Your task to perform on an android device: Add asus rog to the cart on newegg.com Image 0: 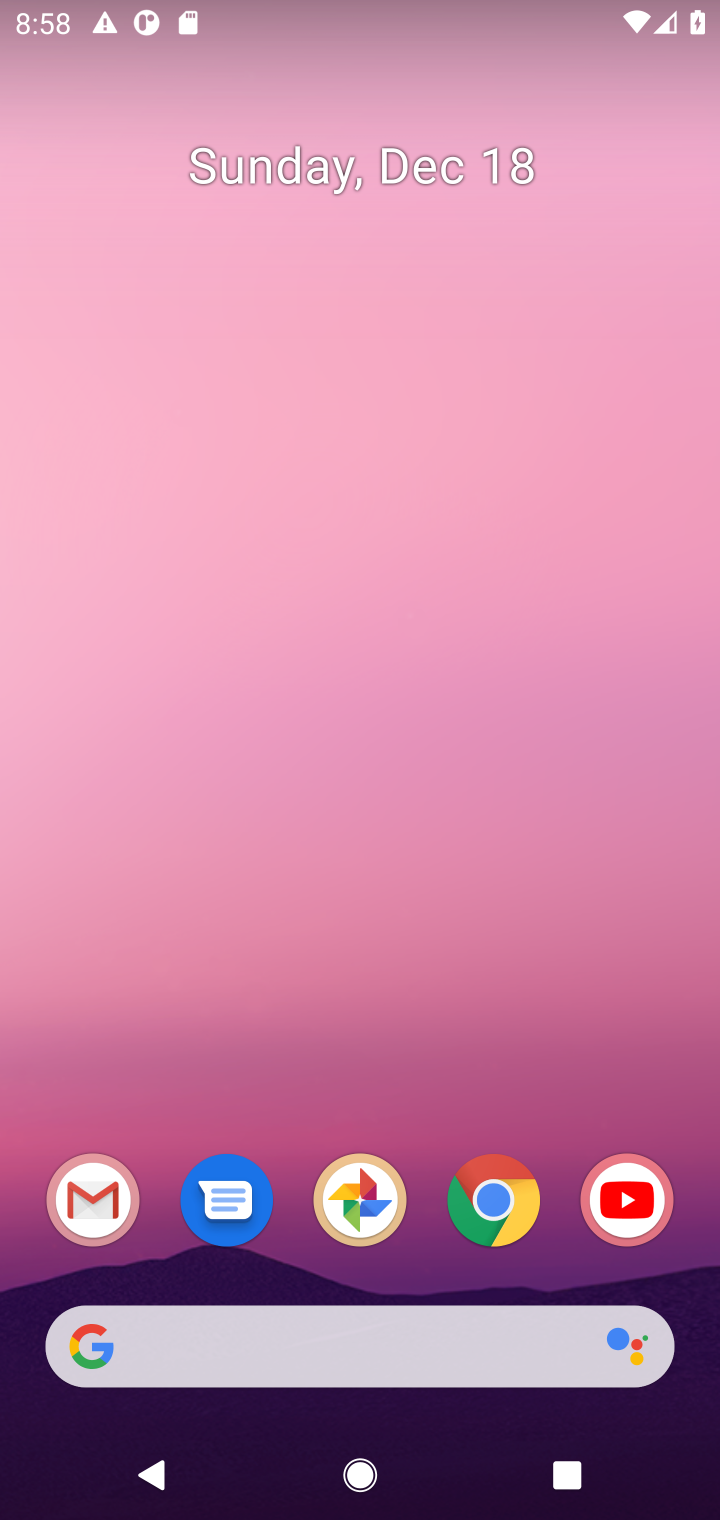
Step 0: click (523, 1220)
Your task to perform on an android device: Add asus rog to the cart on newegg.com Image 1: 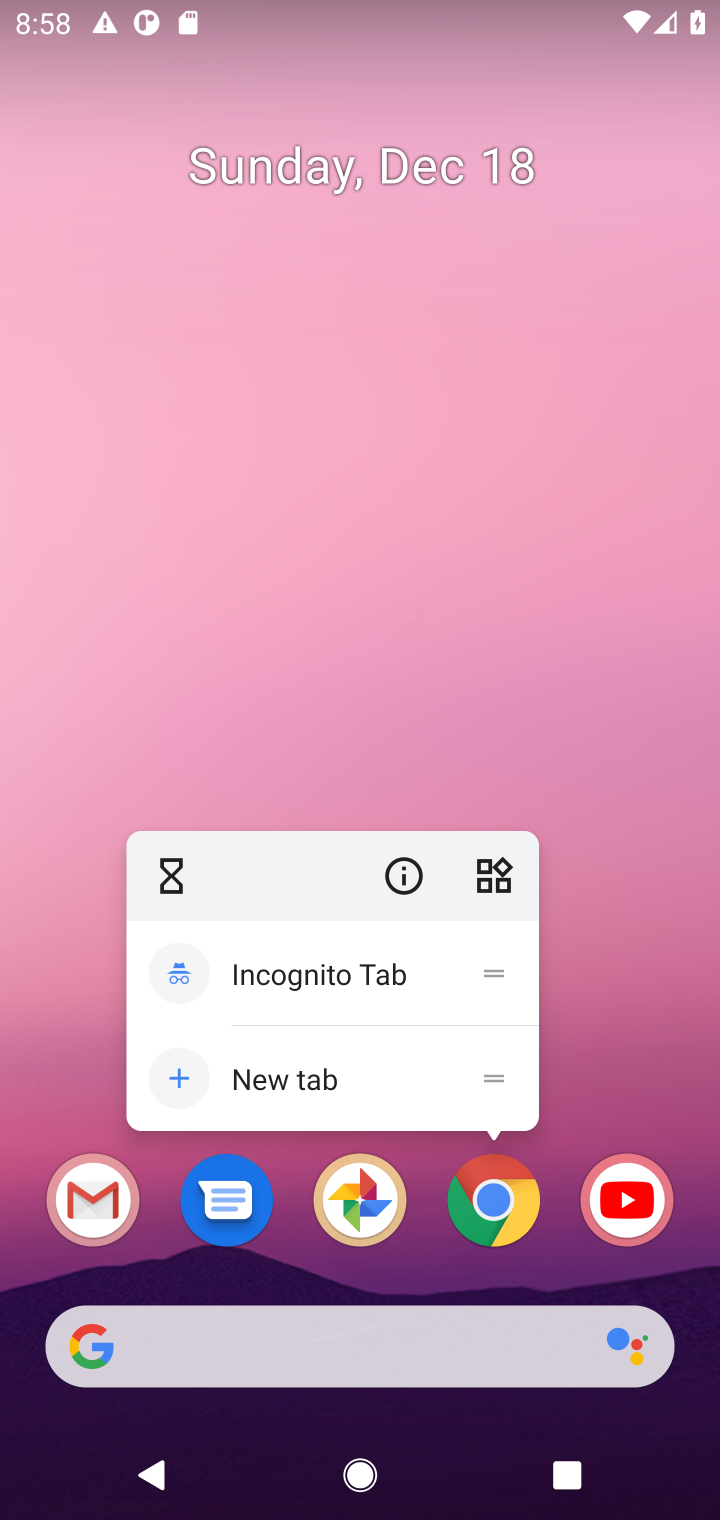
Step 1: click (494, 1200)
Your task to perform on an android device: Add asus rog to the cart on newegg.com Image 2: 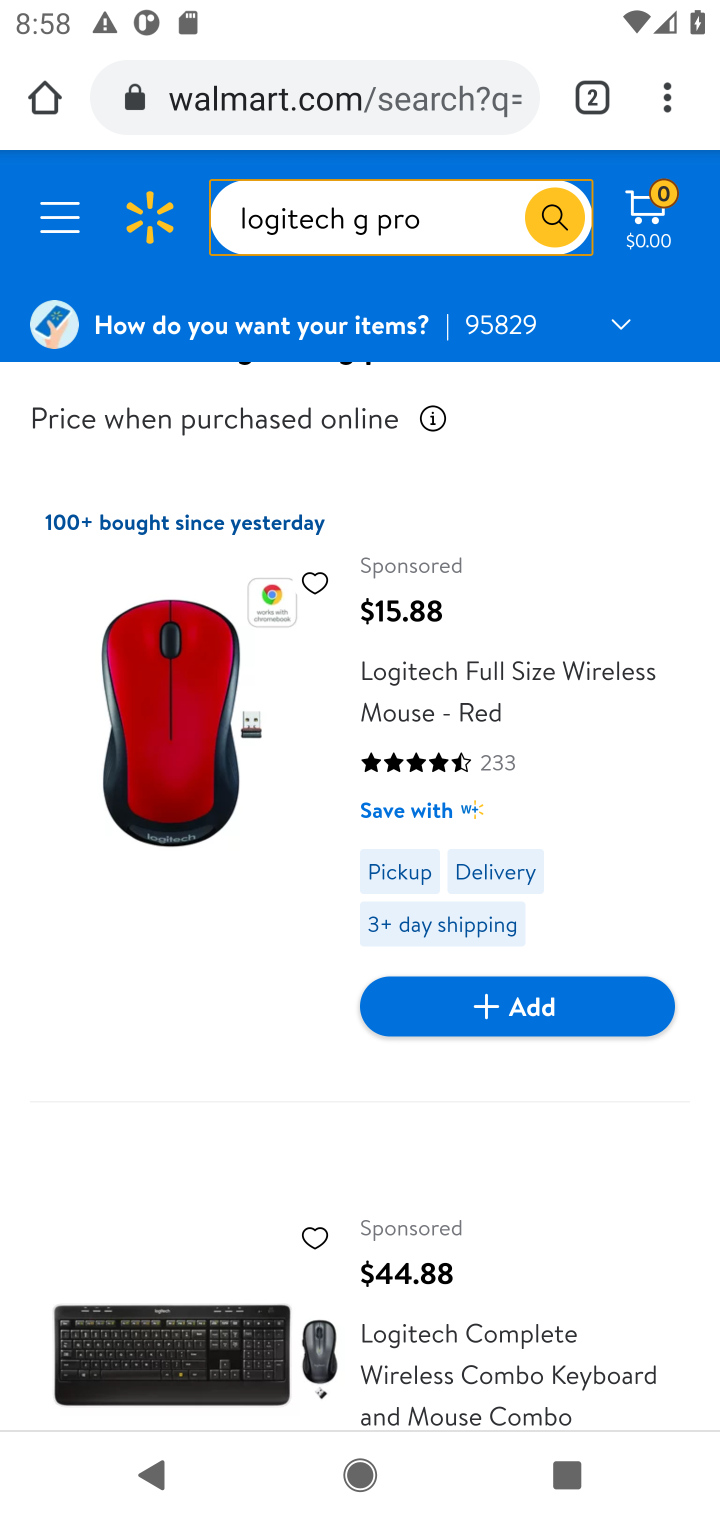
Step 2: click (265, 98)
Your task to perform on an android device: Add asus rog to the cart on newegg.com Image 3: 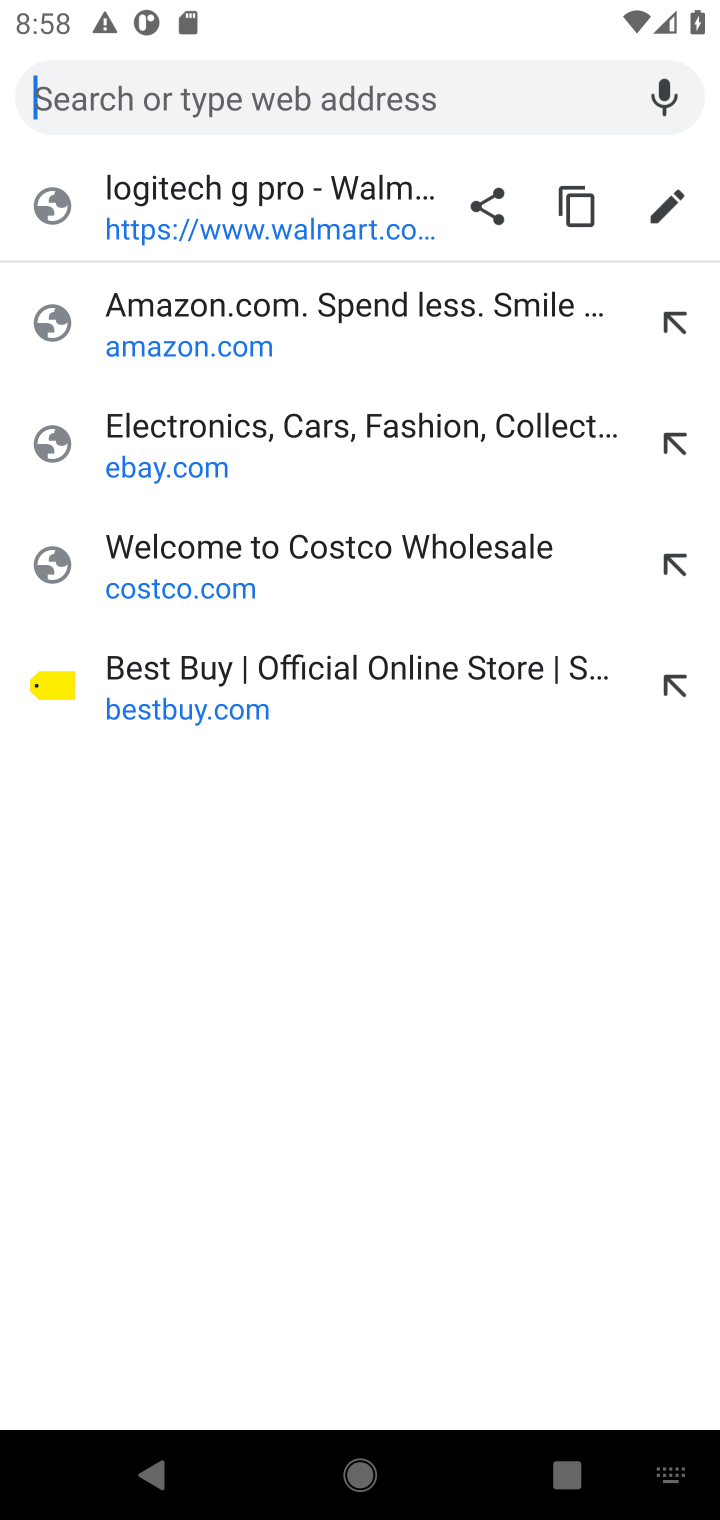
Step 3: type "newegg.com"
Your task to perform on an android device: Add asus rog to the cart on newegg.com Image 4: 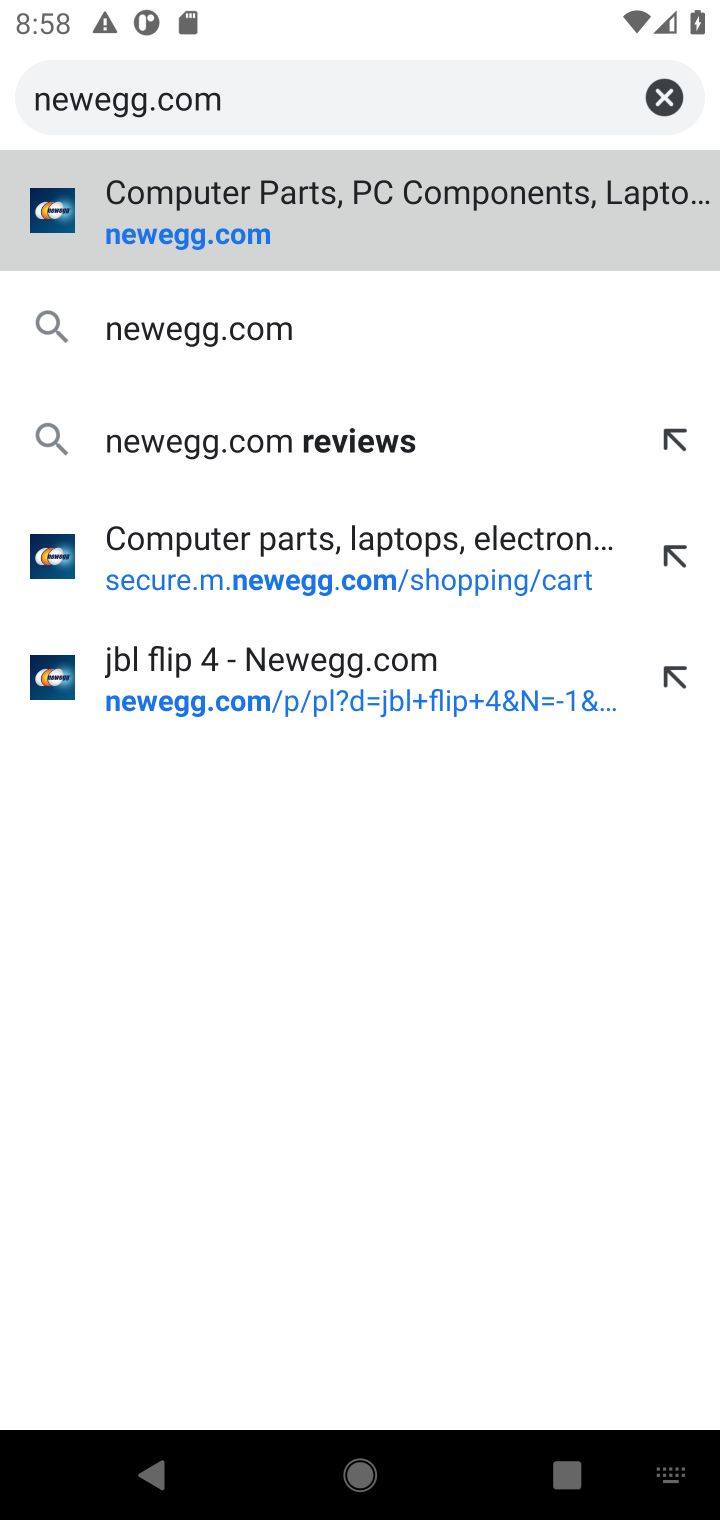
Step 4: click (153, 229)
Your task to perform on an android device: Add asus rog to the cart on newegg.com Image 5: 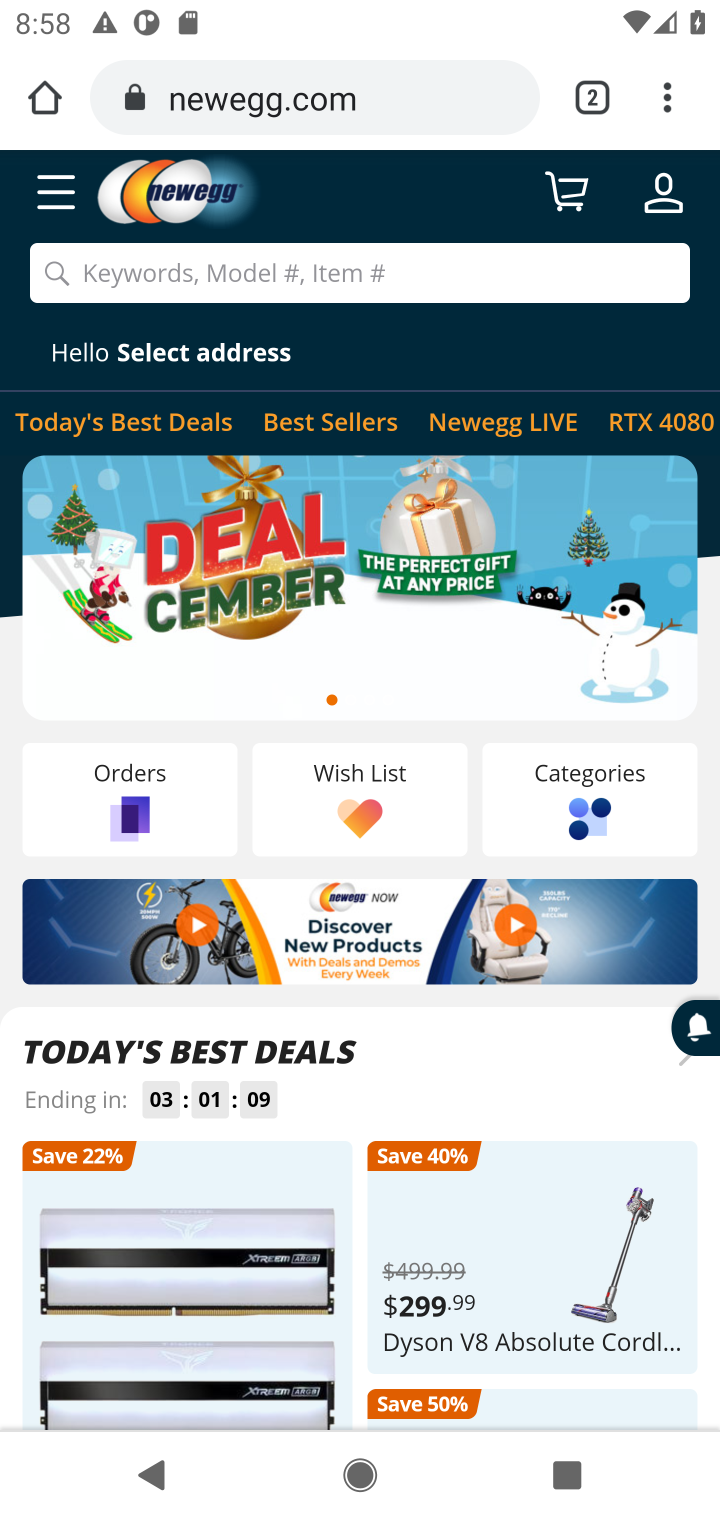
Step 5: click (164, 271)
Your task to perform on an android device: Add asus rog to the cart on newegg.com Image 6: 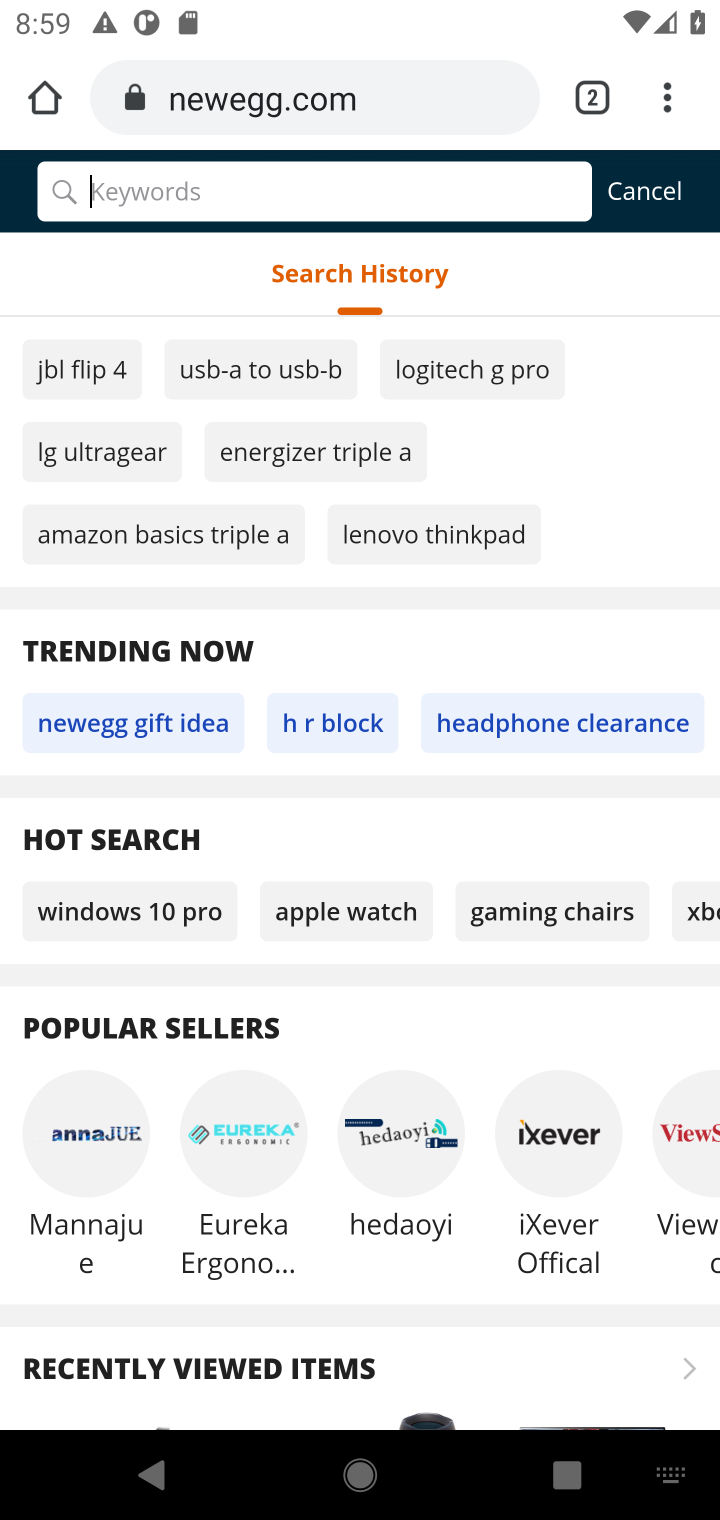
Step 6: type "asus rog"
Your task to perform on an android device: Add asus rog to the cart on newegg.com Image 7: 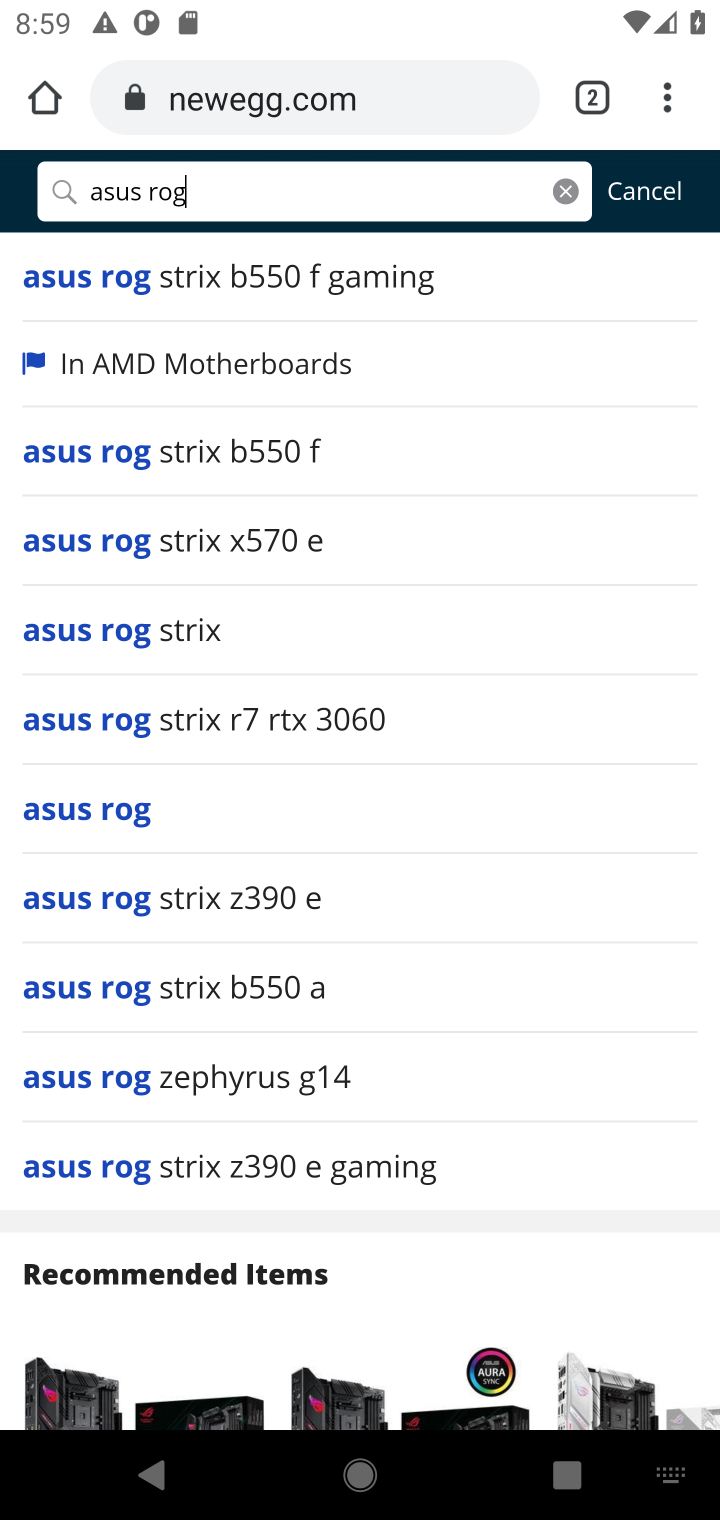
Step 7: click (86, 814)
Your task to perform on an android device: Add asus rog to the cart on newegg.com Image 8: 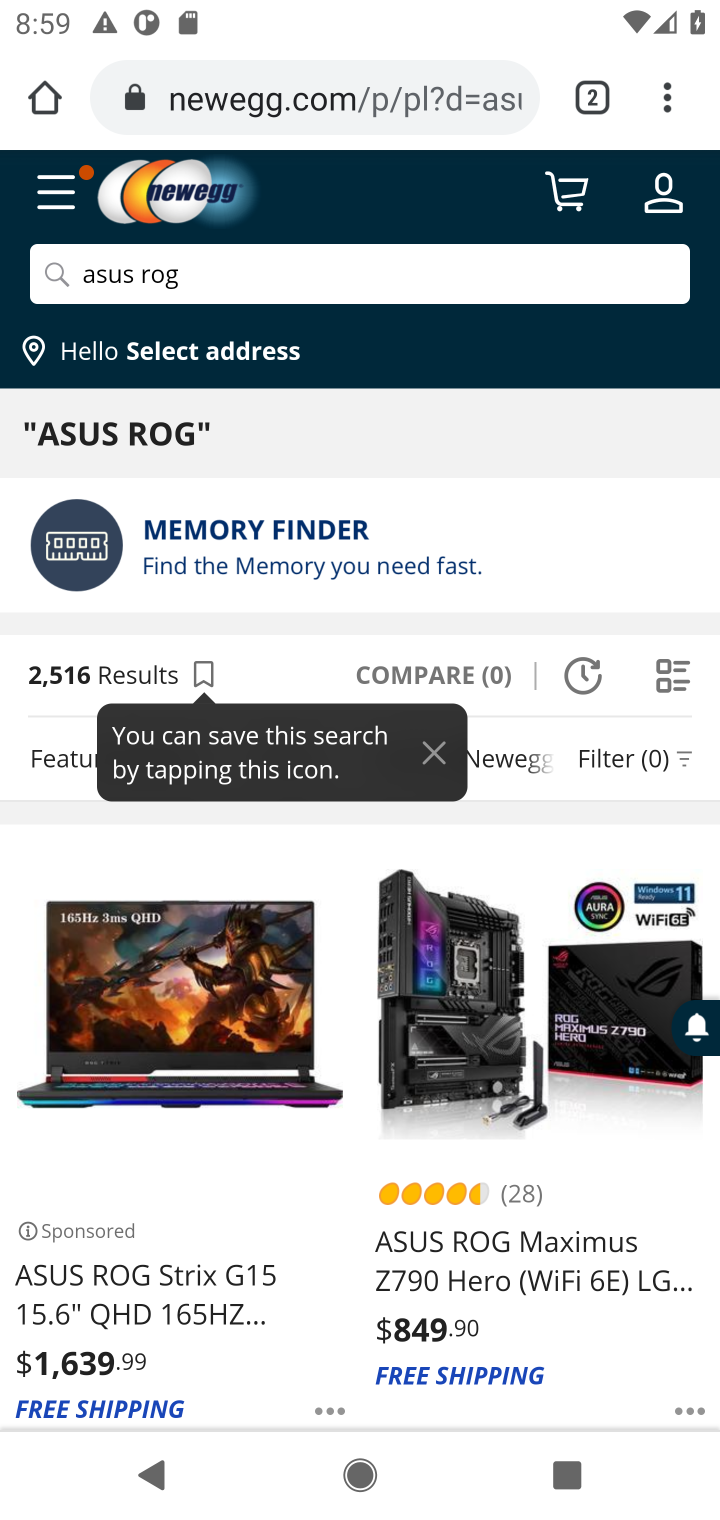
Step 8: drag from (175, 1182) to (194, 681)
Your task to perform on an android device: Add asus rog to the cart on newegg.com Image 9: 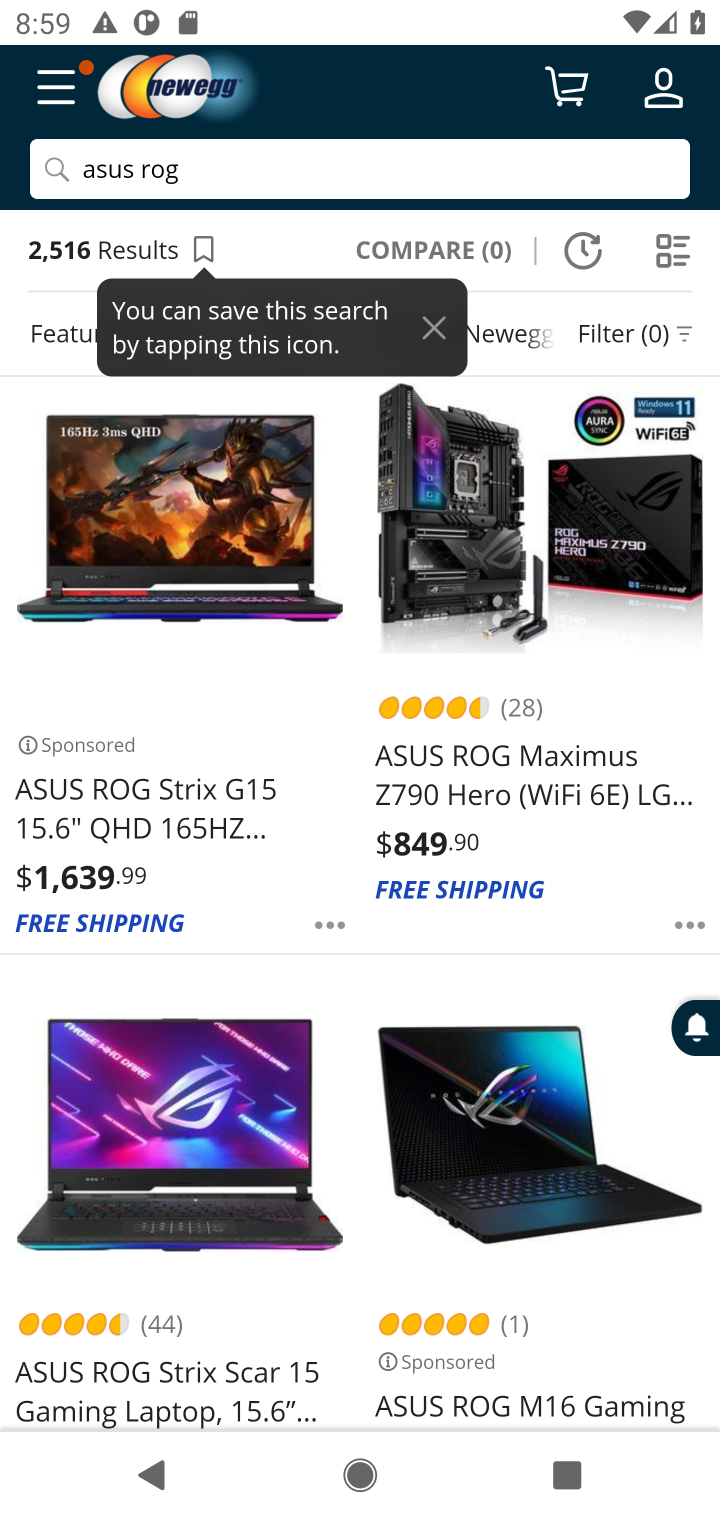
Step 9: click (141, 805)
Your task to perform on an android device: Add asus rog to the cart on newegg.com Image 10: 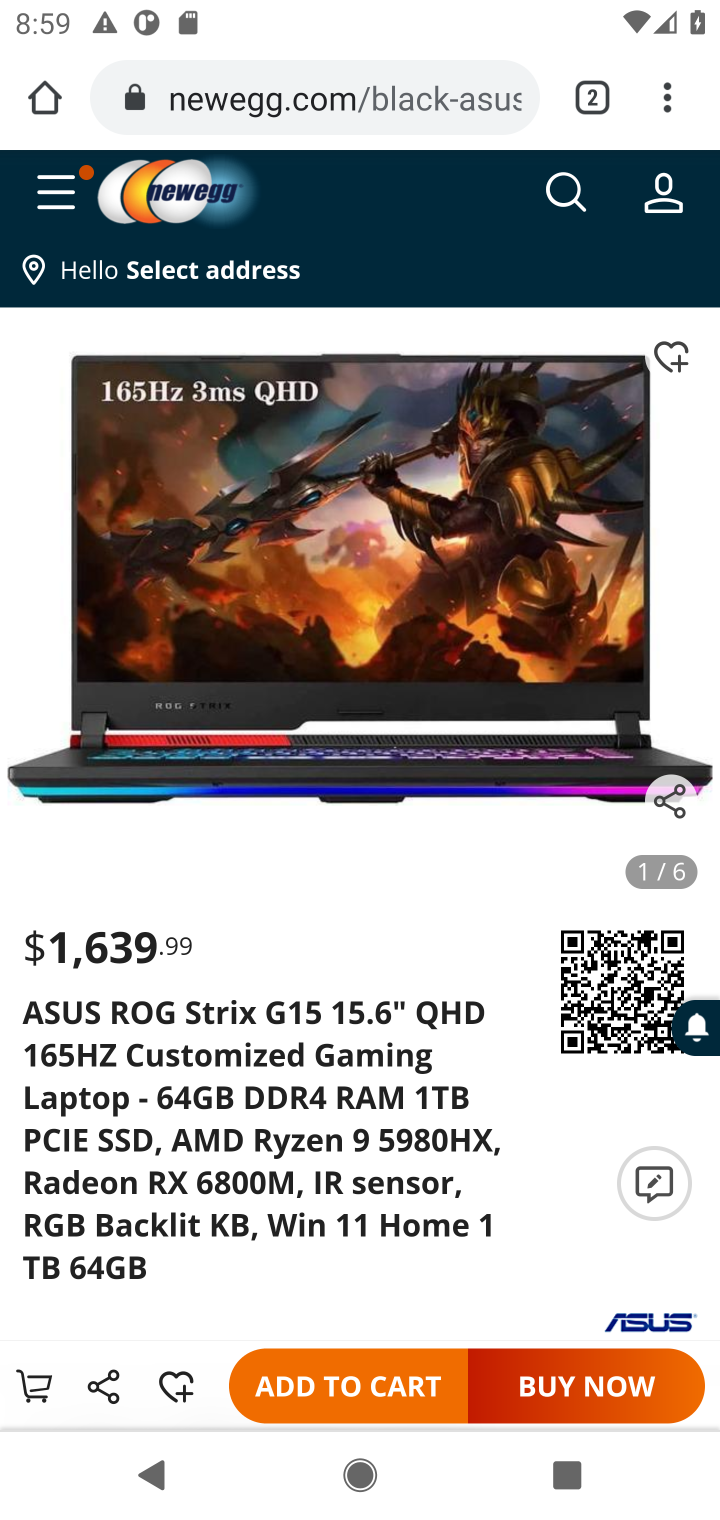
Step 10: click (340, 1387)
Your task to perform on an android device: Add asus rog to the cart on newegg.com Image 11: 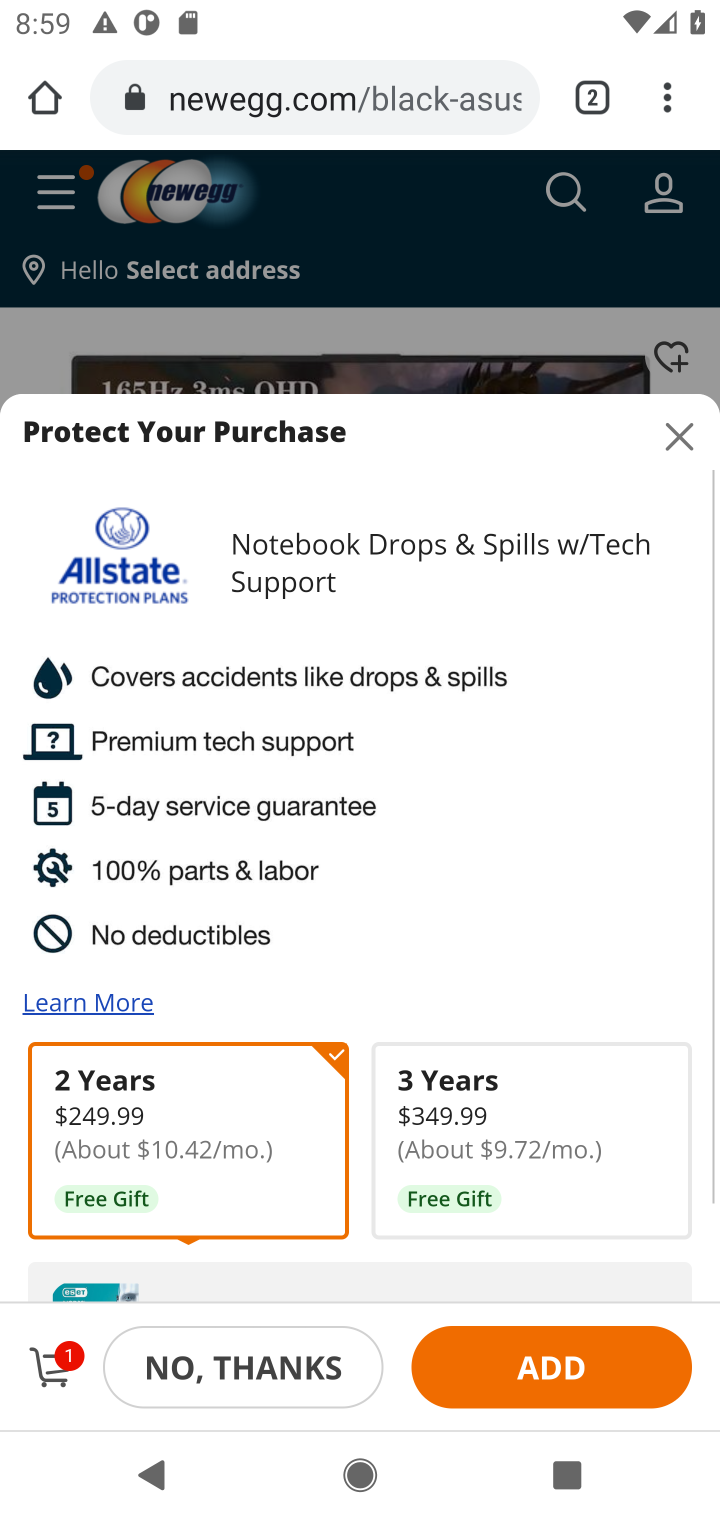
Step 11: task complete